Your task to perform on an android device: Turn off the flashlight Image 0: 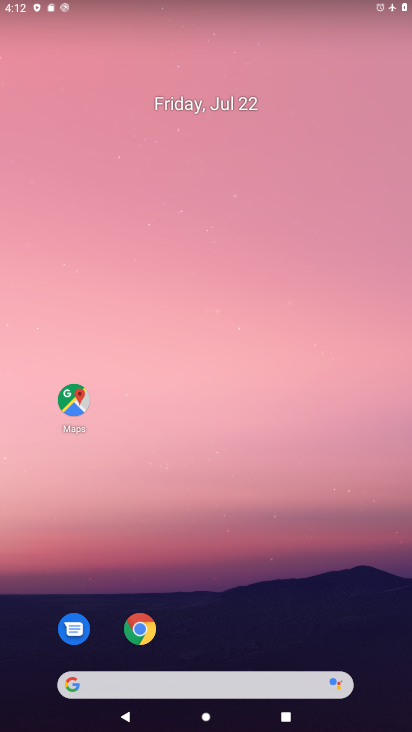
Step 0: drag from (253, 525) to (240, 108)
Your task to perform on an android device: Turn off the flashlight Image 1: 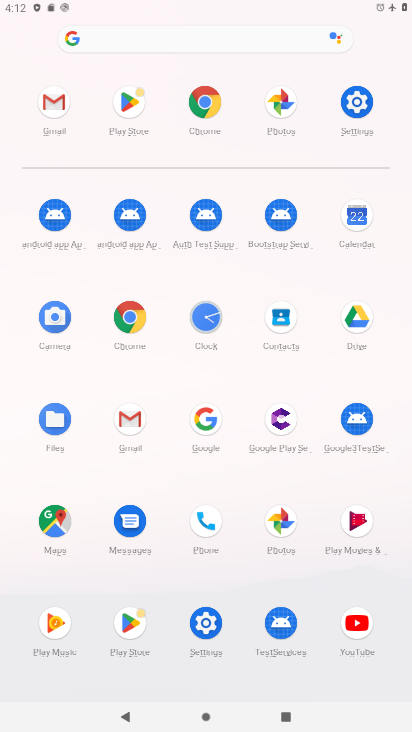
Step 1: click (363, 84)
Your task to perform on an android device: Turn off the flashlight Image 2: 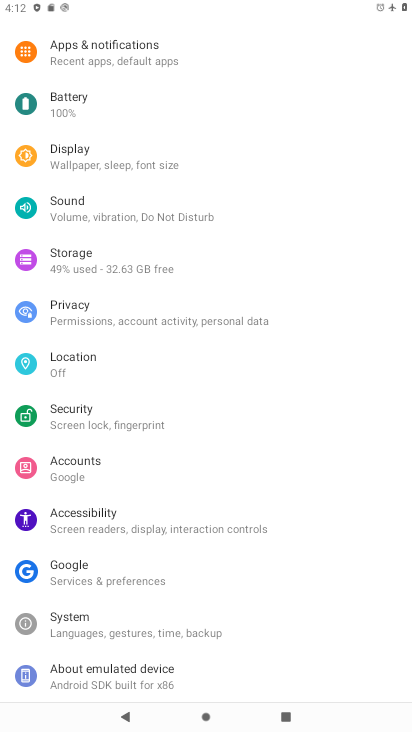
Step 2: click (125, 159)
Your task to perform on an android device: Turn off the flashlight Image 3: 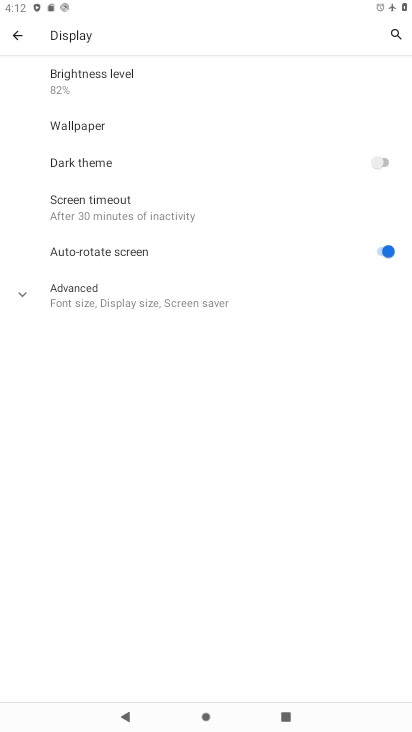
Step 3: task complete